Your task to perform on an android device: Search for Mexican restaurants on Maps Image 0: 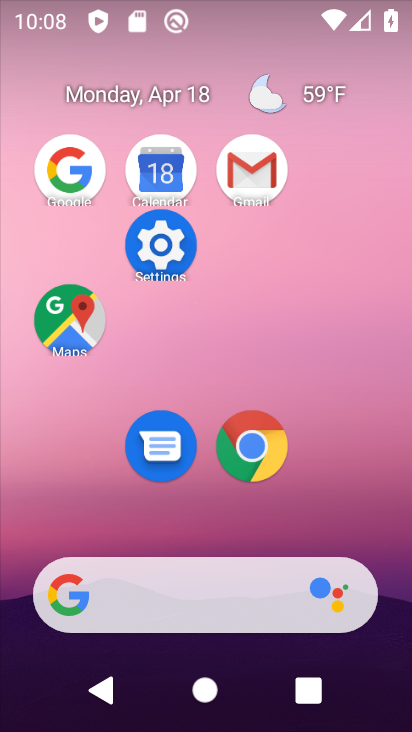
Step 0: drag from (201, 537) to (273, 87)
Your task to perform on an android device: Search for Mexican restaurants on Maps Image 1: 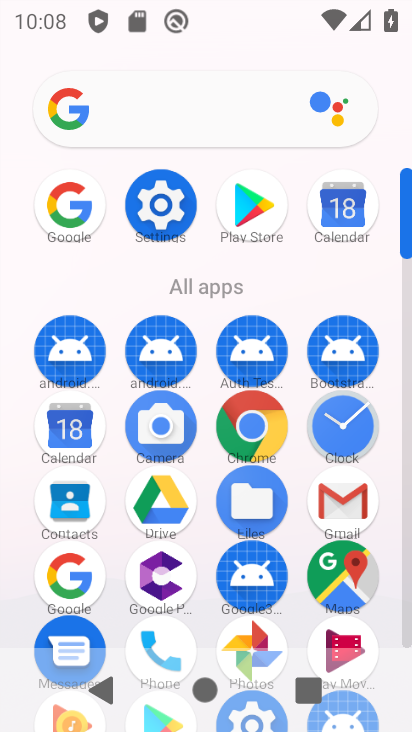
Step 1: click (340, 560)
Your task to perform on an android device: Search for Mexican restaurants on Maps Image 2: 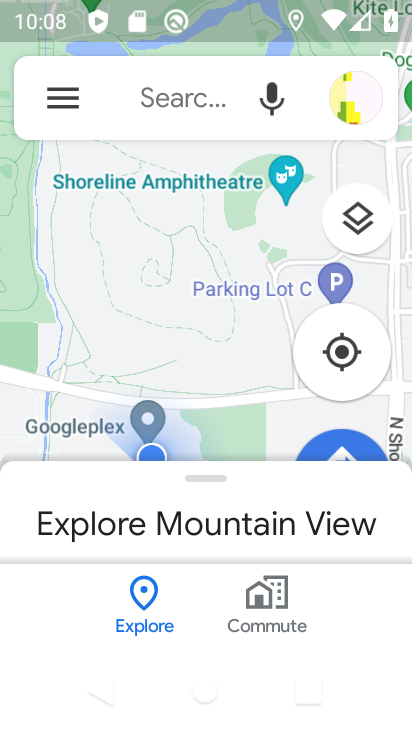
Step 2: click (171, 98)
Your task to perform on an android device: Search for Mexican restaurants on Maps Image 3: 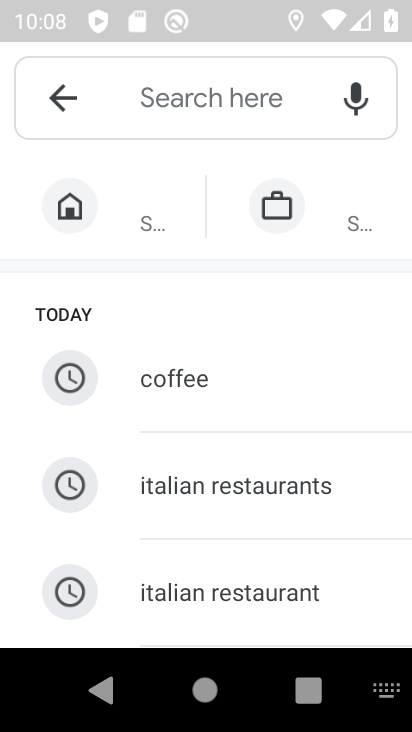
Step 3: type "mexican restaurants"
Your task to perform on an android device: Search for Mexican restaurants on Maps Image 4: 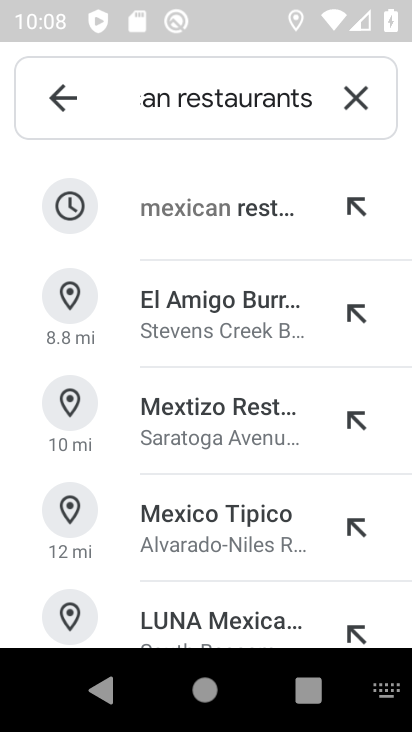
Step 4: task complete